Your task to perform on an android device: Go to network settings Image 0: 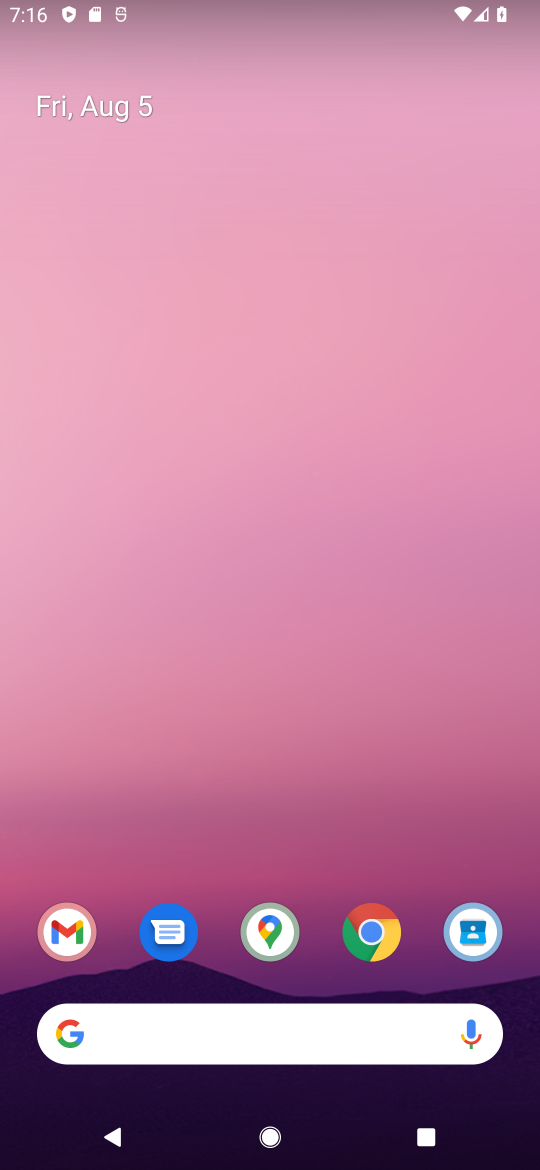
Step 0: drag from (387, 829) to (355, 176)
Your task to perform on an android device: Go to network settings Image 1: 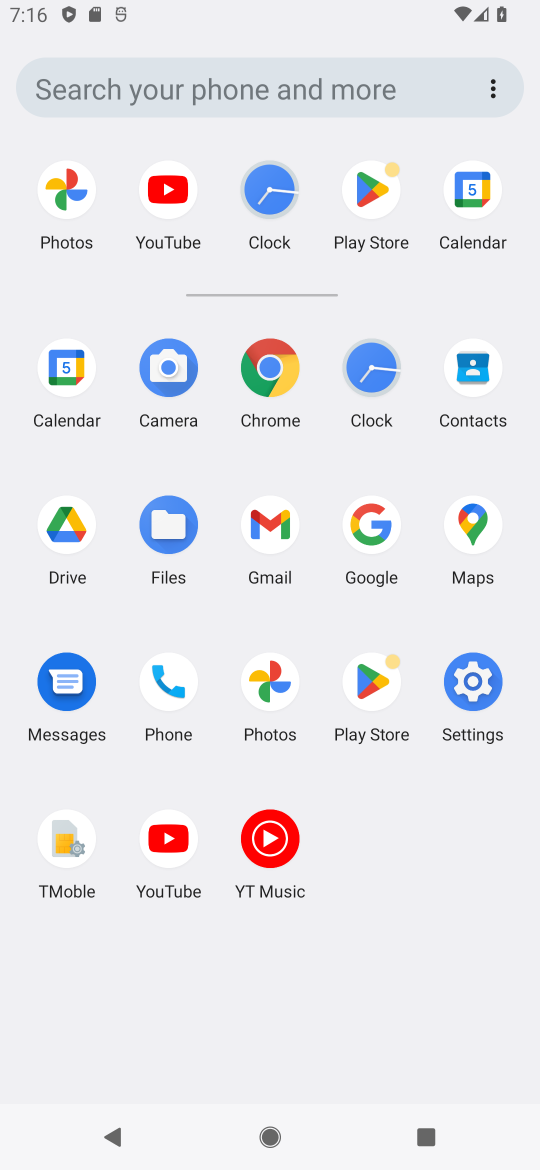
Step 1: click (475, 679)
Your task to perform on an android device: Go to network settings Image 2: 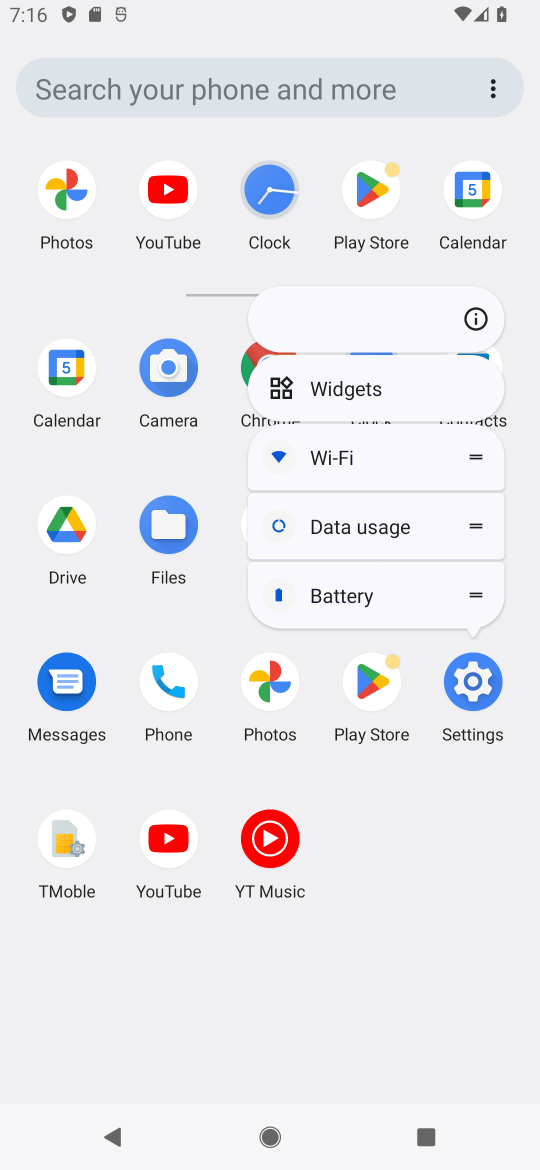
Step 2: click (475, 677)
Your task to perform on an android device: Go to network settings Image 3: 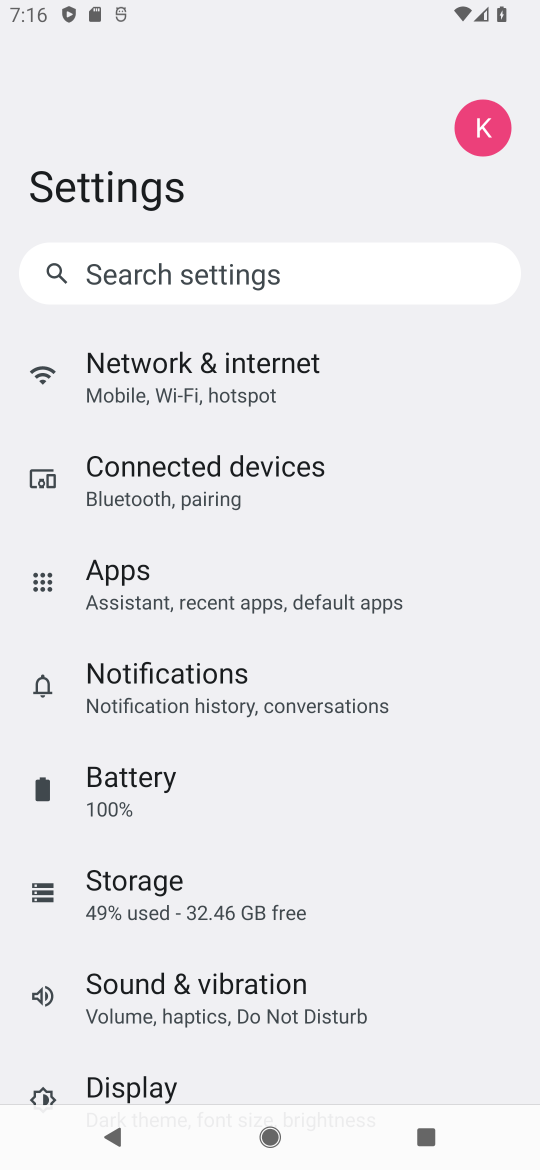
Step 3: click (270, 380)
Your task to perform on an android device: Go to network settings Image 4: 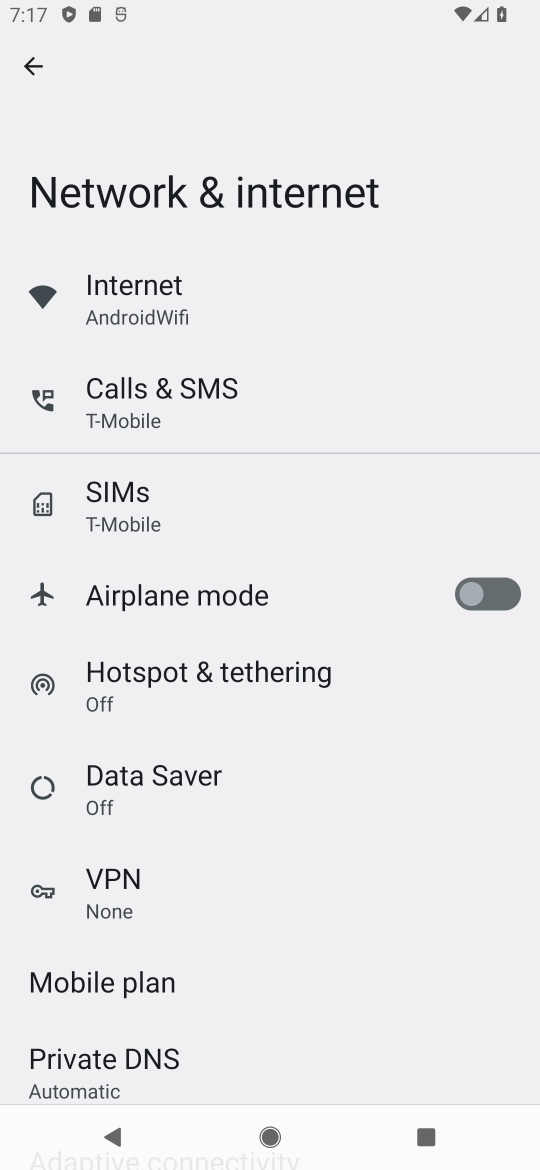
Step 4: task complete